Your task to perform on an android device: open app "Google Chat" Image 0: 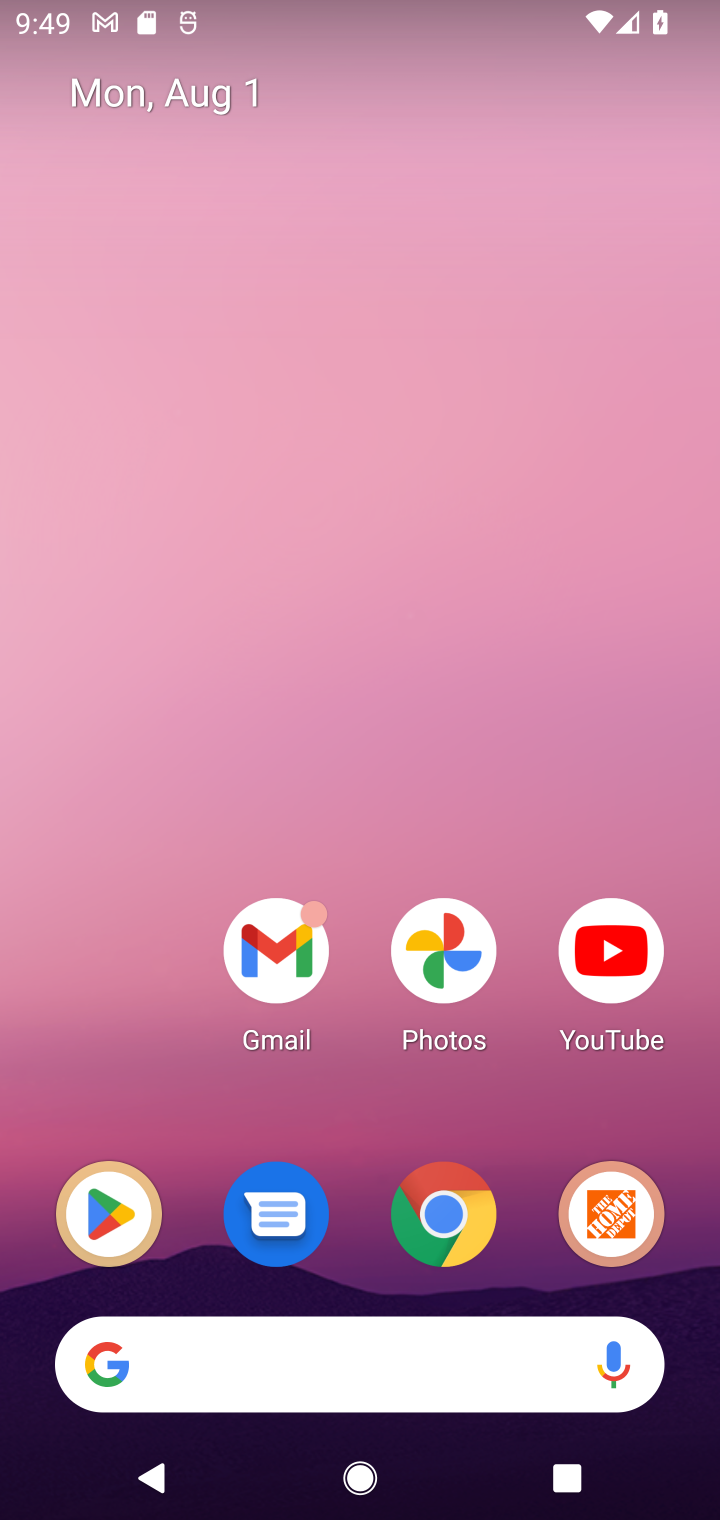
Step 0: press home button
Your task to perform on an android device: open app "Google Chat" Image 1: 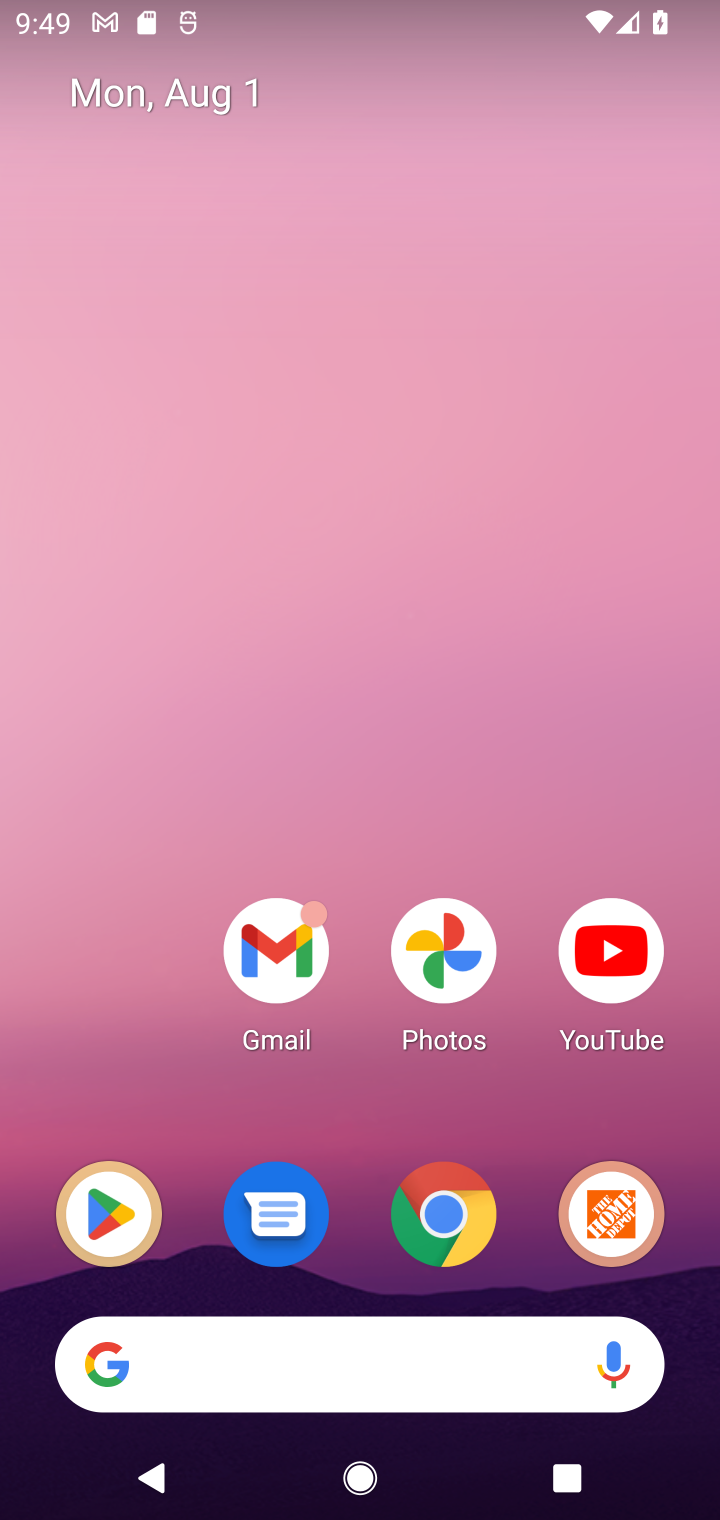
Step 1: click (106, 1213)
Your task to perform on an android device: open app "Google Chat" Image 2: 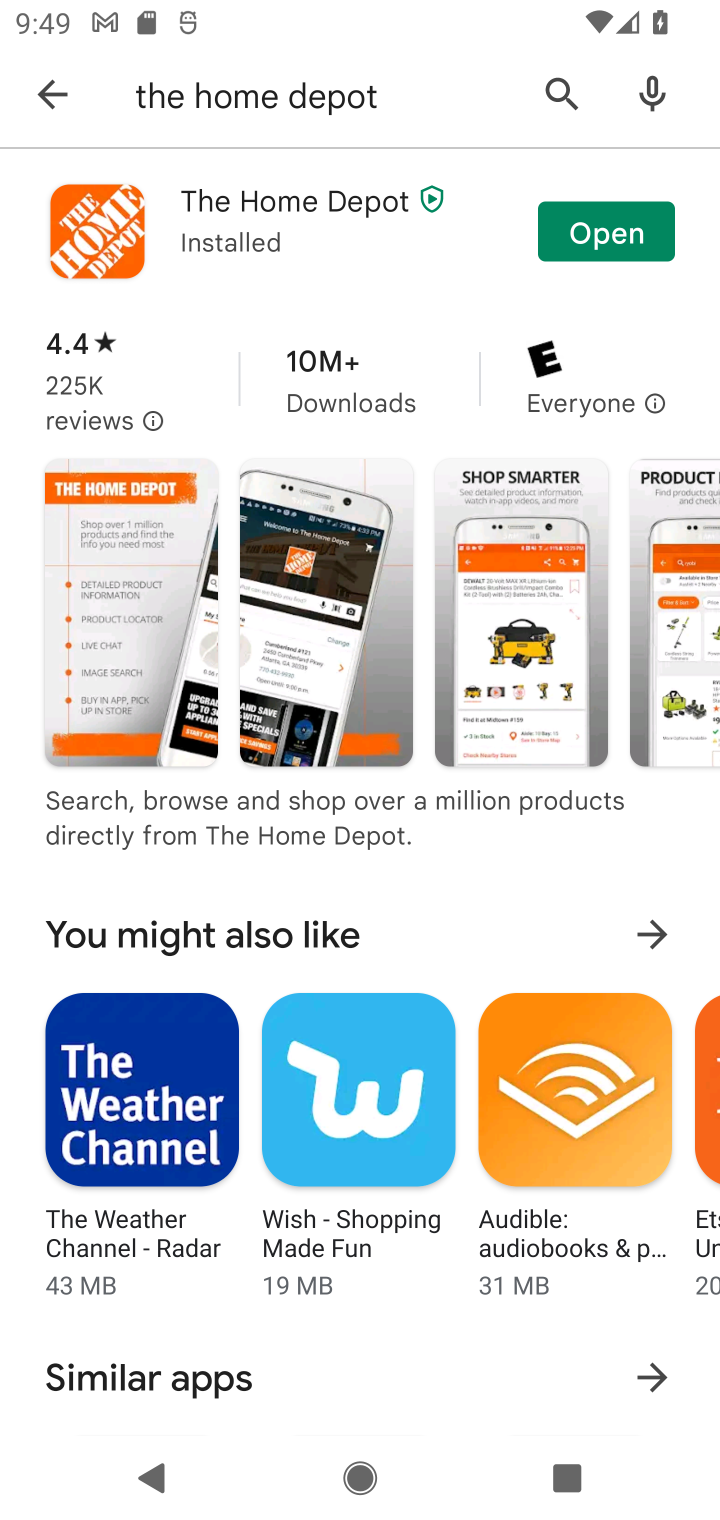
Step 2: click (549, 88)
Your task to perform on an android device: open app "Google Chat" Image 3: 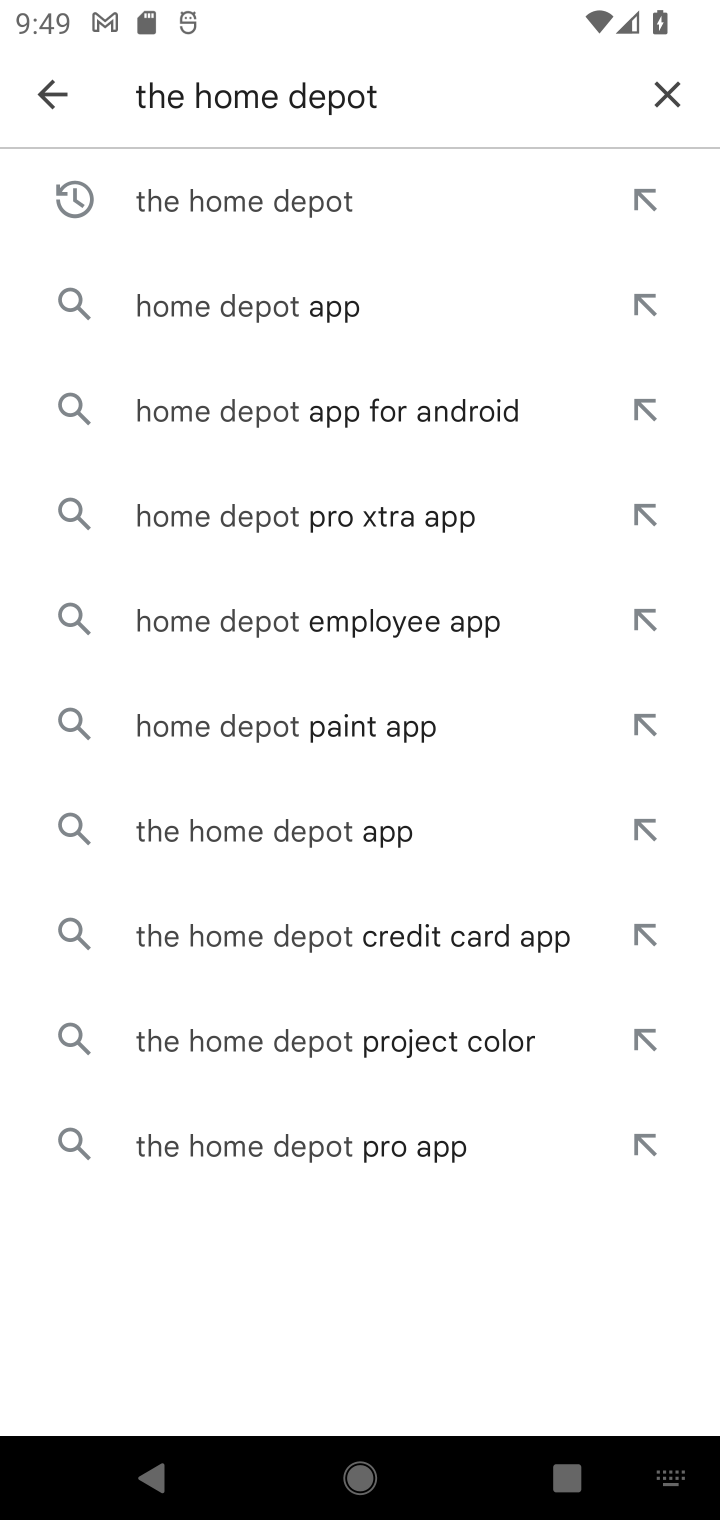
Step 3: click (672, 90)
Your task to perform on an android device: open app "Google Chat" Image 4: 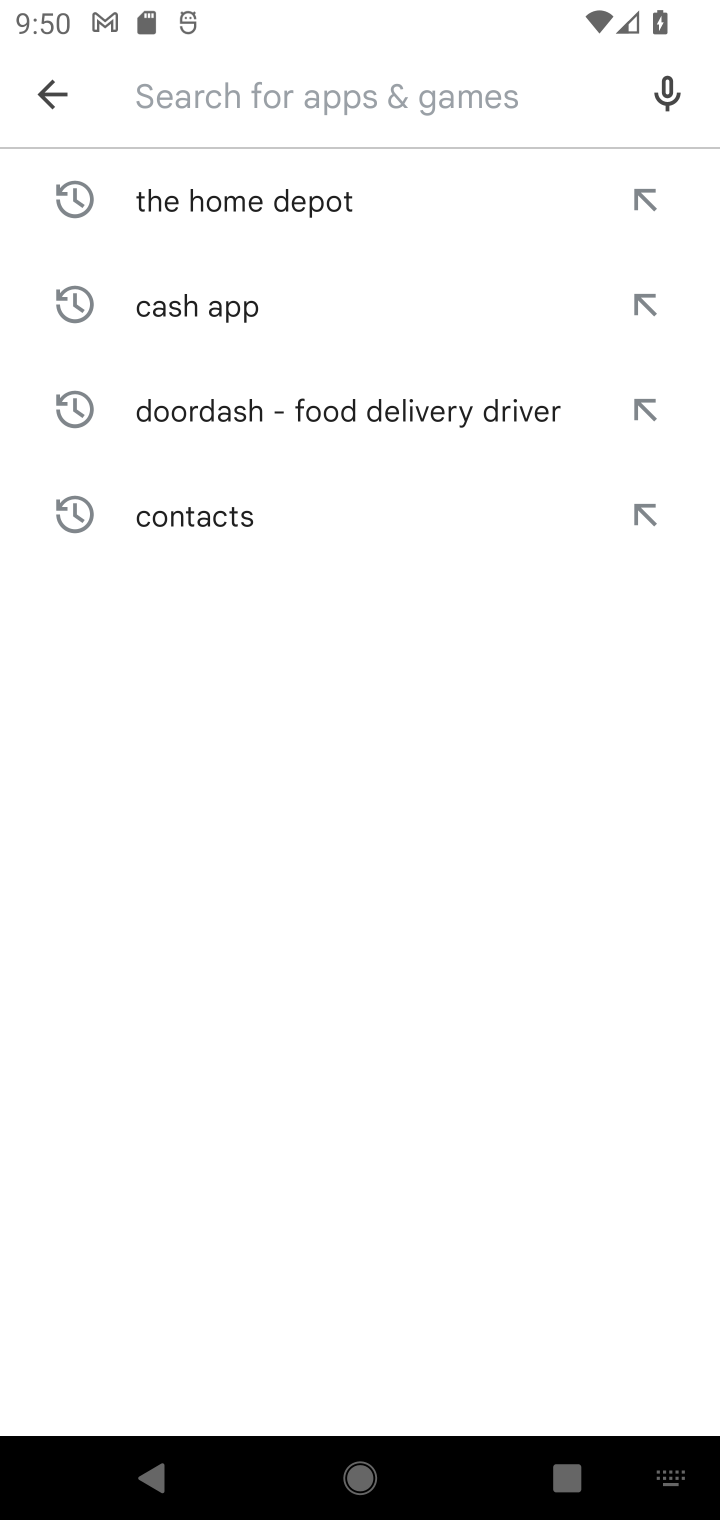
Step 4: type "Google Chat"
Your task to perform on an android device: open app "Google Chat" Image 5: 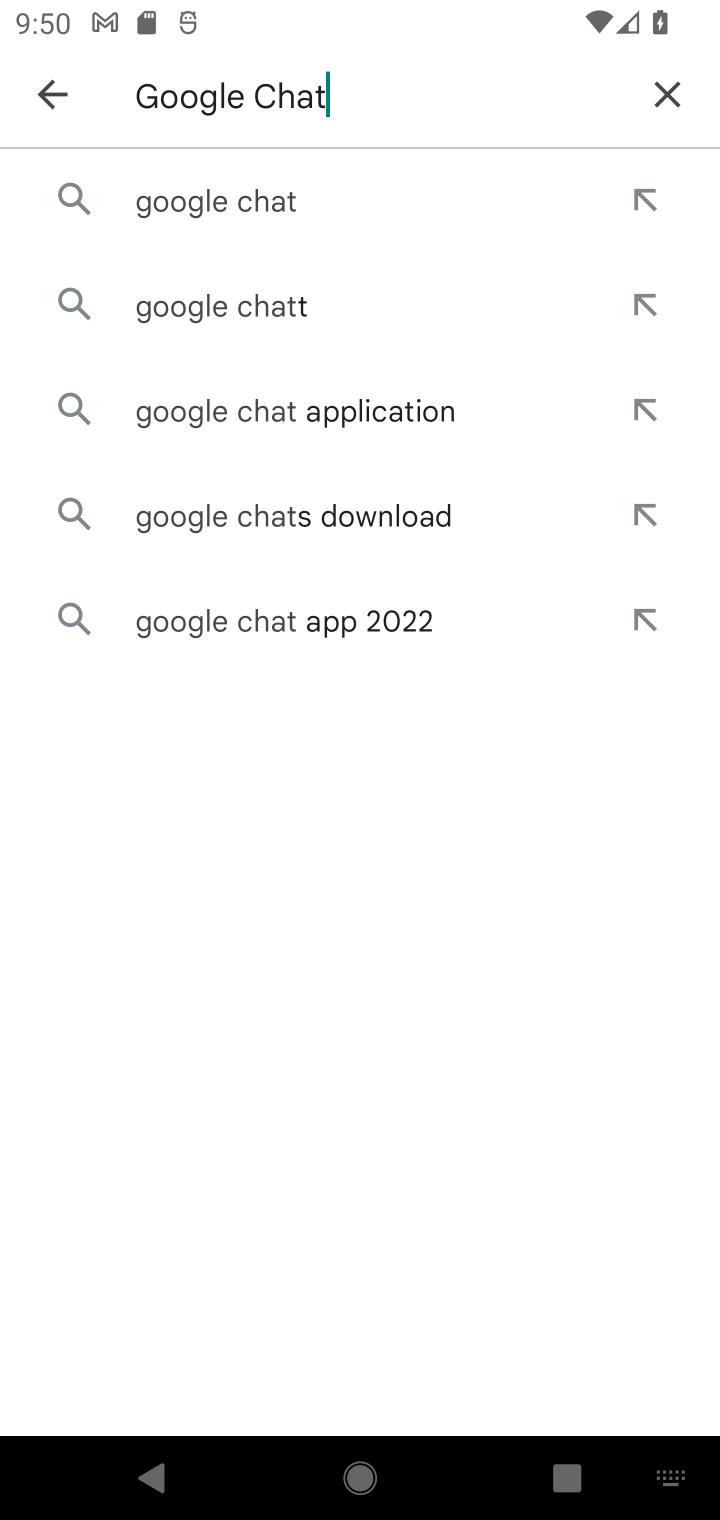
Step 5: click (205, 184)
Your task to perform on an android device: open app "Google Chat" Image 6: 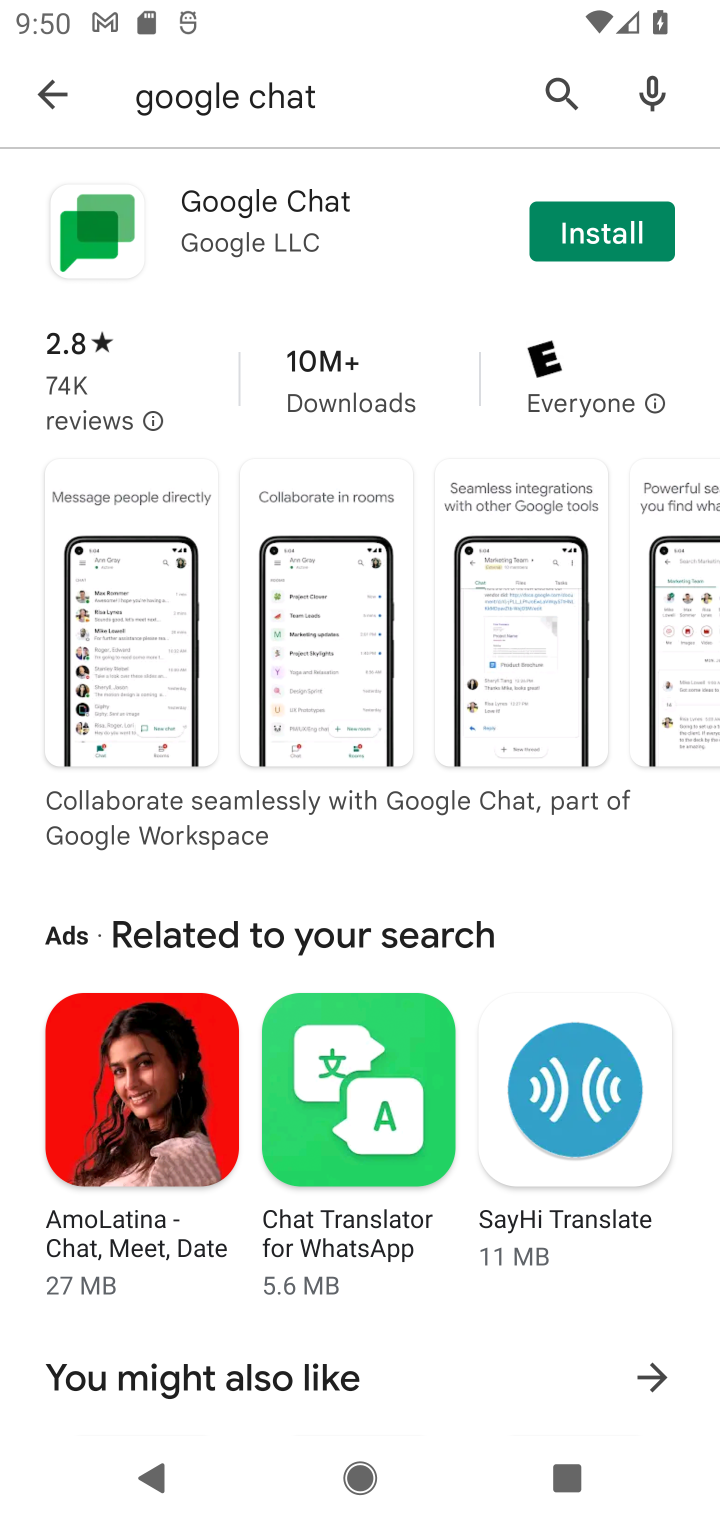
Step 6: task complete